Your task to perform on an android device: uninstall "YouTube Kids" Image 0: 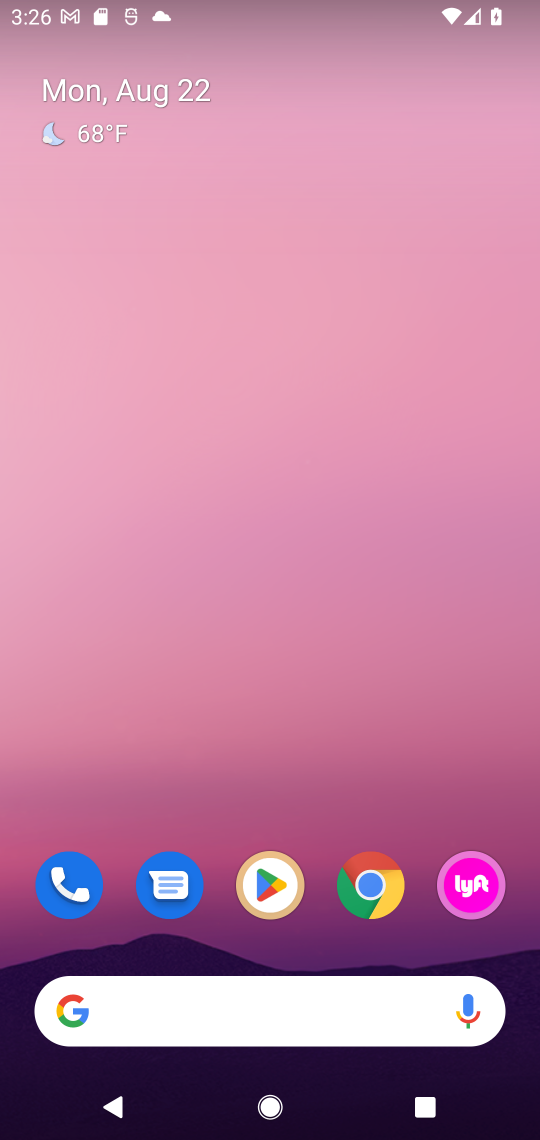
Step 0: click (262, 882)
Your task to perform on an android device: uninstall "YouTube Kids" Image 1: 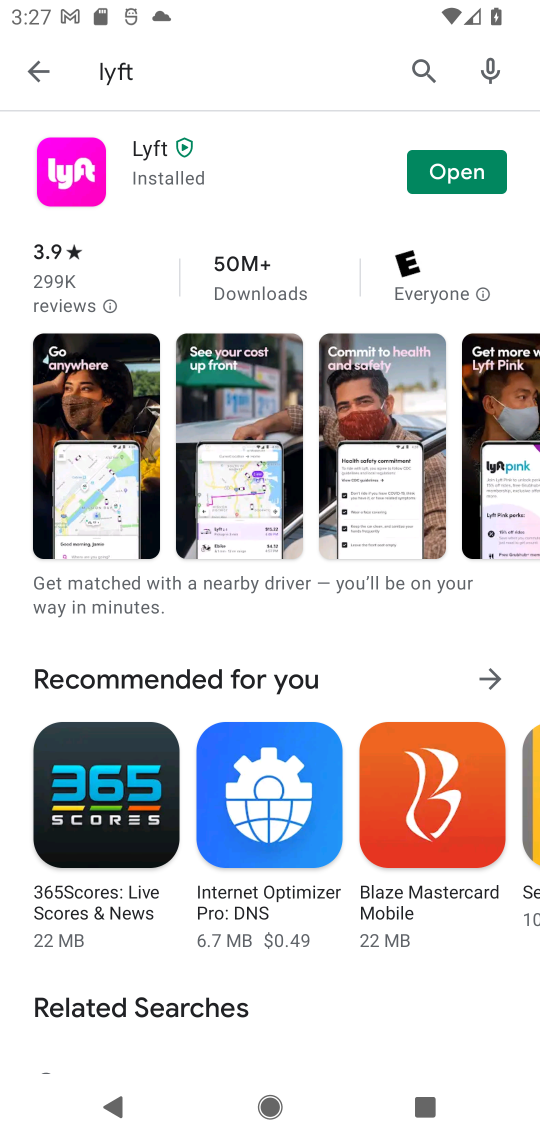
Step 1: click (415, 79)
Your task to perform on an android device: uninstall "YouTube Kids" Image 2: 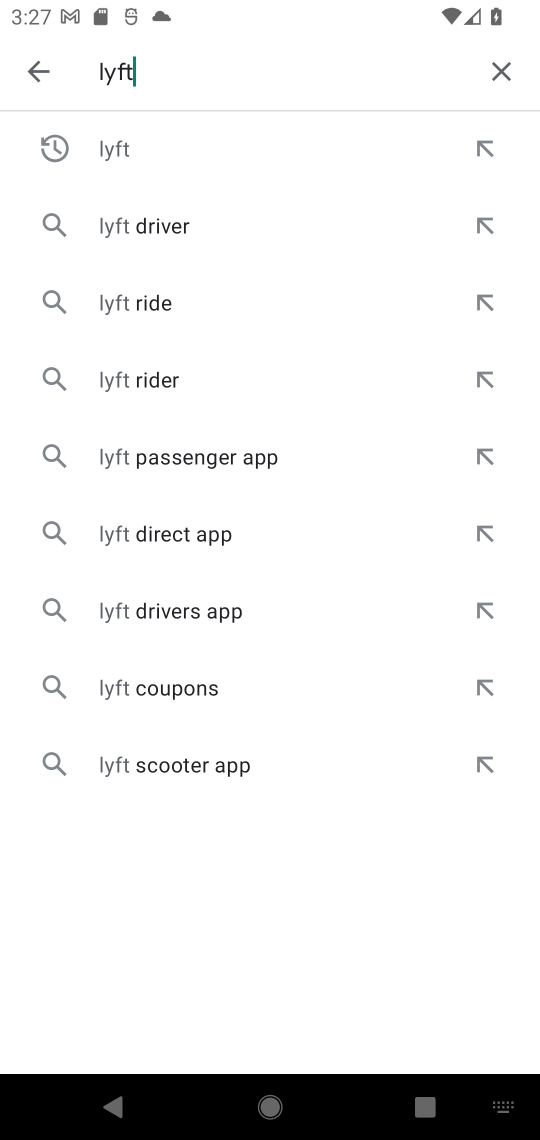
Step 2: type "YouTube Kids"
Your task to perform on an android device: uninstall "YouTube Kids" Image 3: 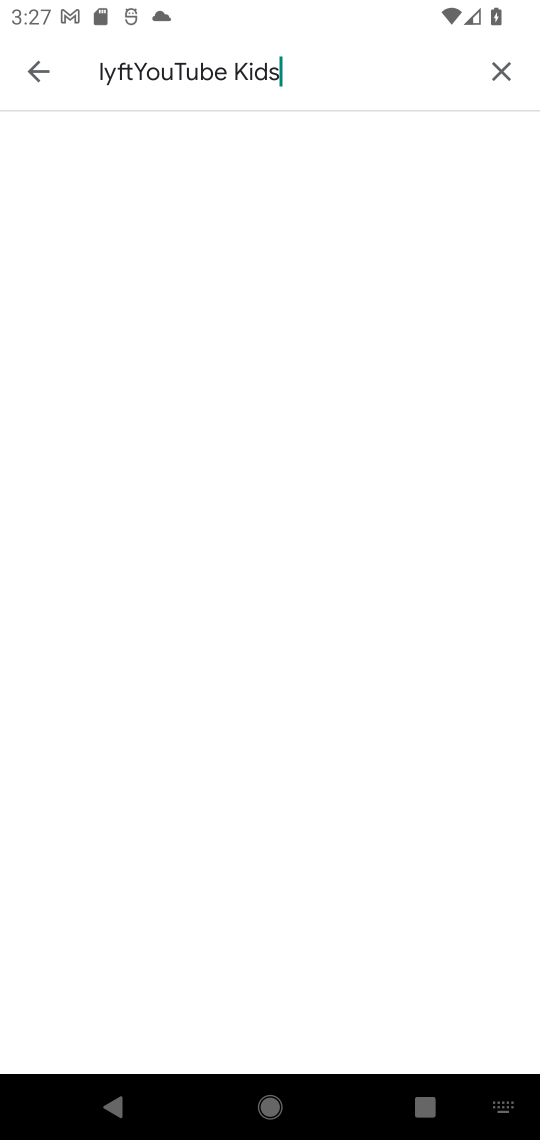
Step 3: click (489, 64)
Your task to perform on an android device: uninstall "YouTube Kids" Image 4: 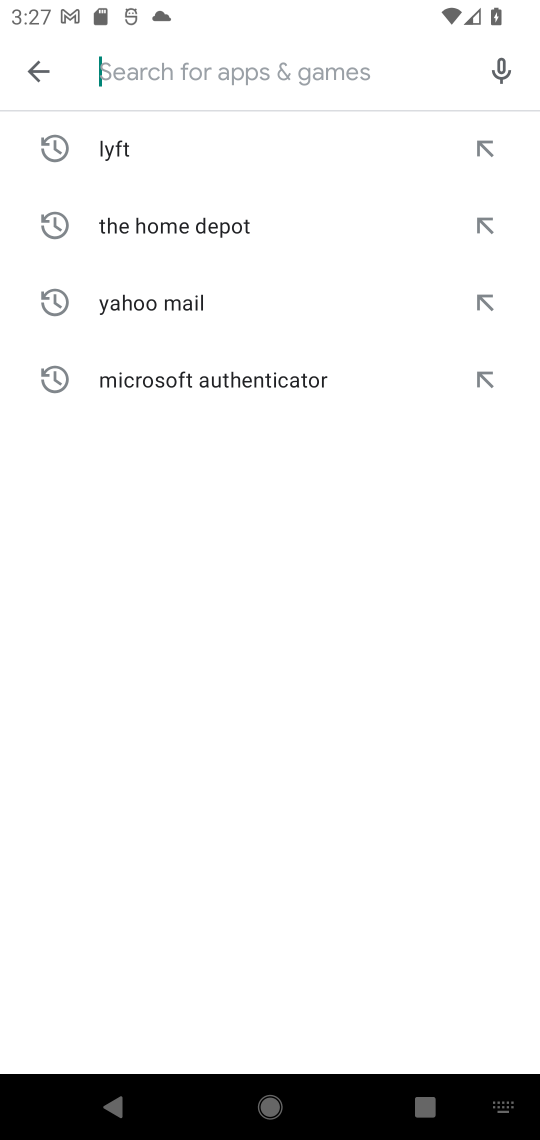
Step 4: type "YouTube Kids"
Your task to perform on an android device: uninstall "YouTube Kids" Image 5: 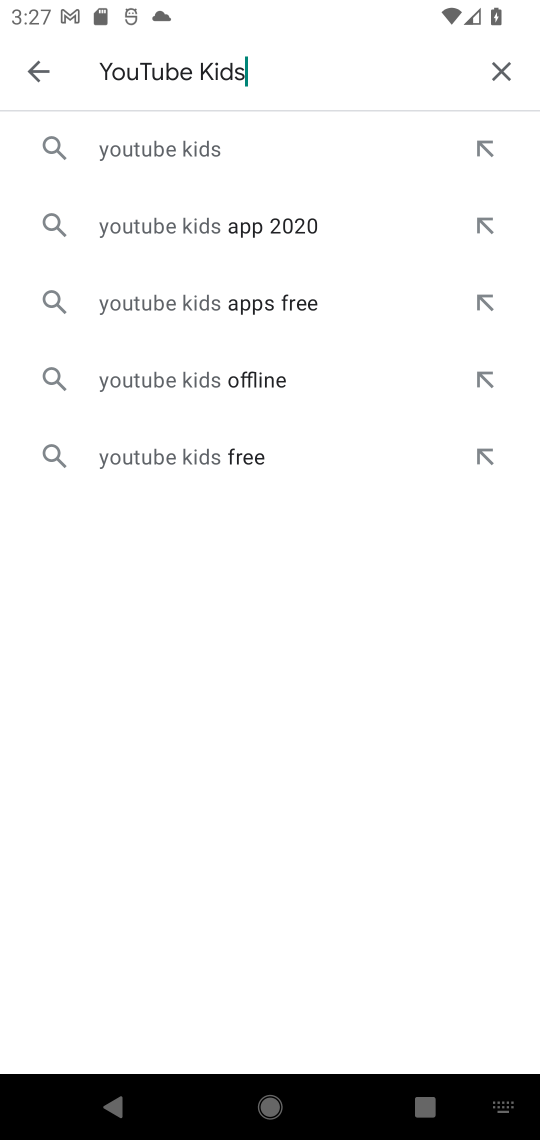
Step 5: click (203, 155)
Your task to perform on an android device: uninstall "YouTube Kids" Image 6: 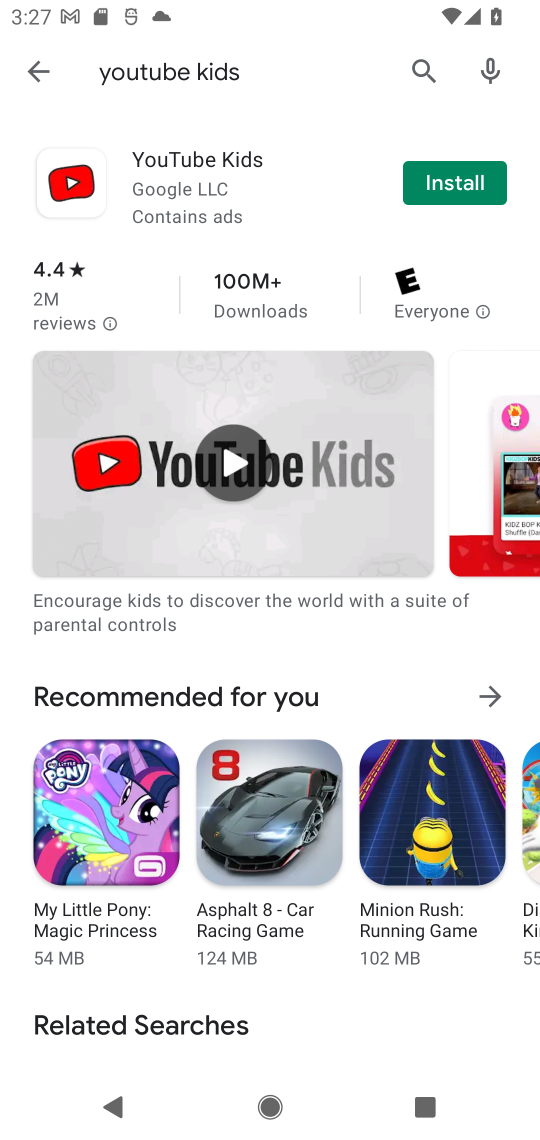
Step 6: task complete